Your task to perform on an android device: Open Google Maps Image 0: 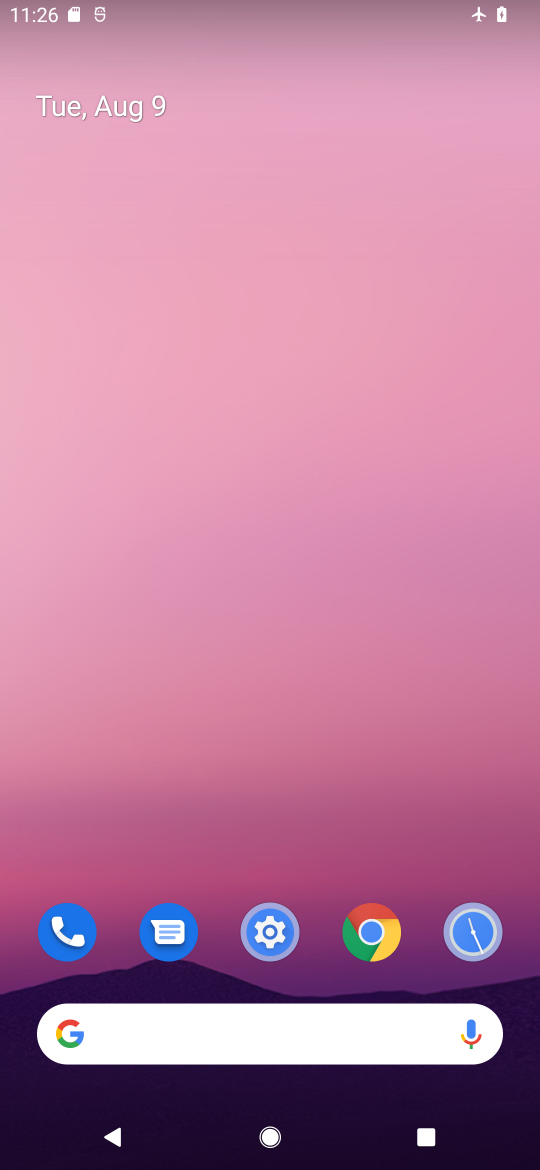
Step 0: drag from (181, 975) to (289, 24)
Your task to perform on an android device: Open Google Maps Image 1: 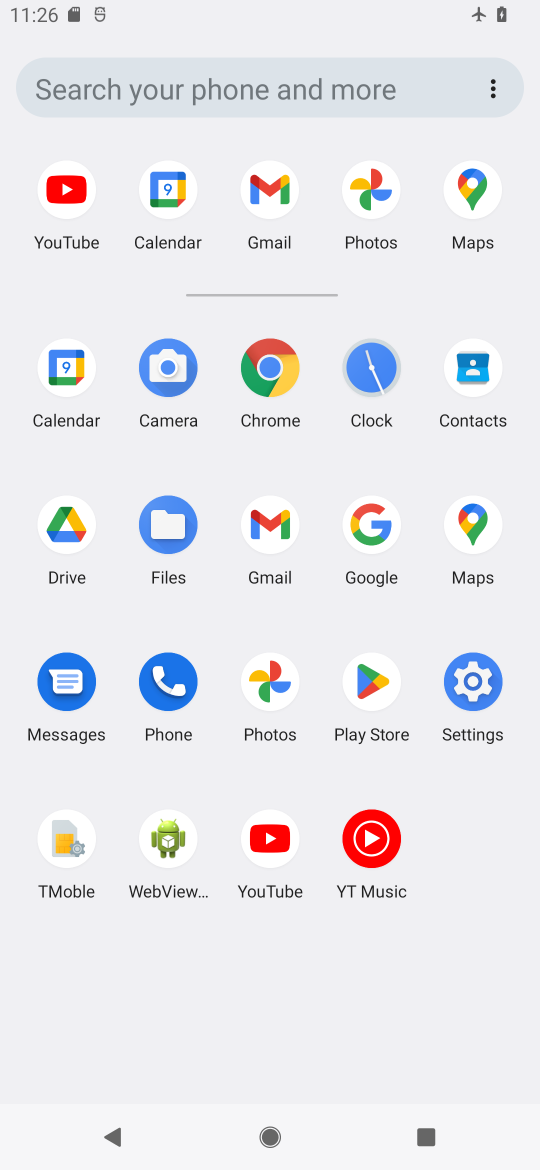
Step 1: click (482, 526)
Your task to perform on an android device: Open Google Maps Image 2: 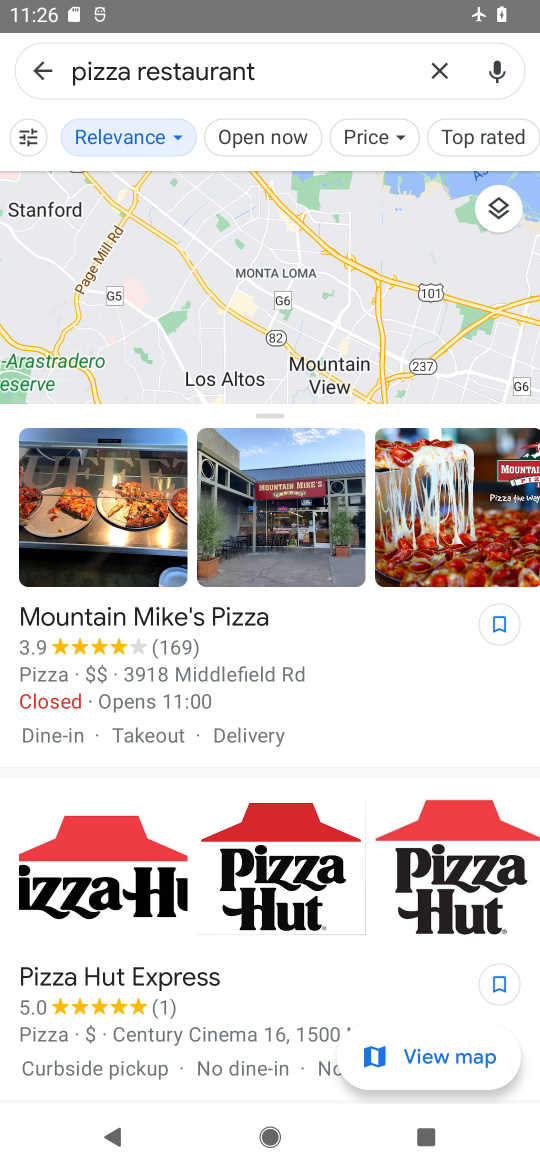
Step 2: click (50, 75)
Your task to perform on an android device: Open Google Maps Image 3: 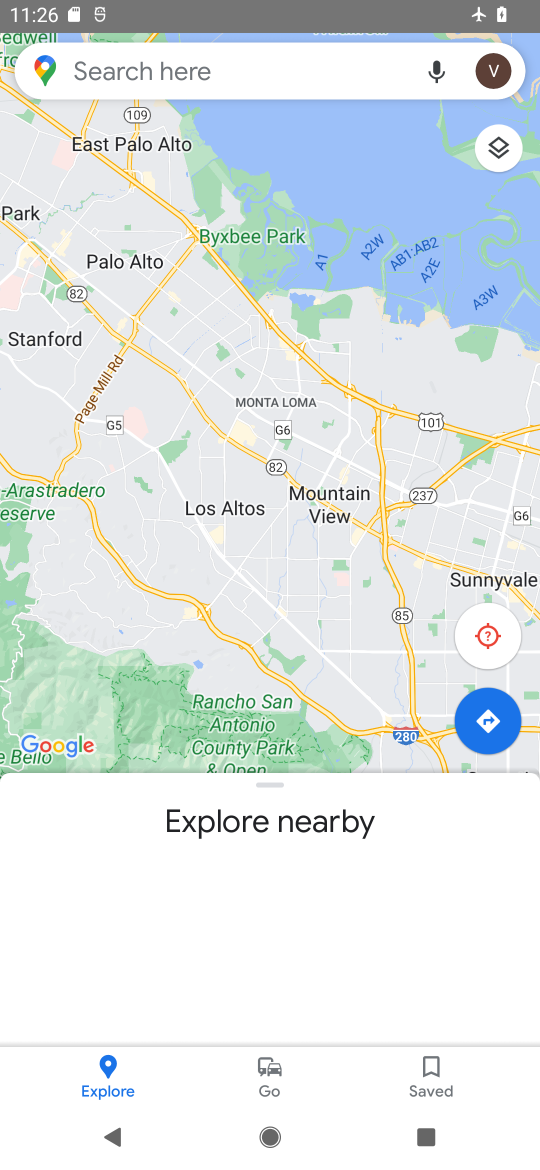
Step 3: task complete